Your task to perform on an android device: Play the last video I watched on Youtube Image 0: 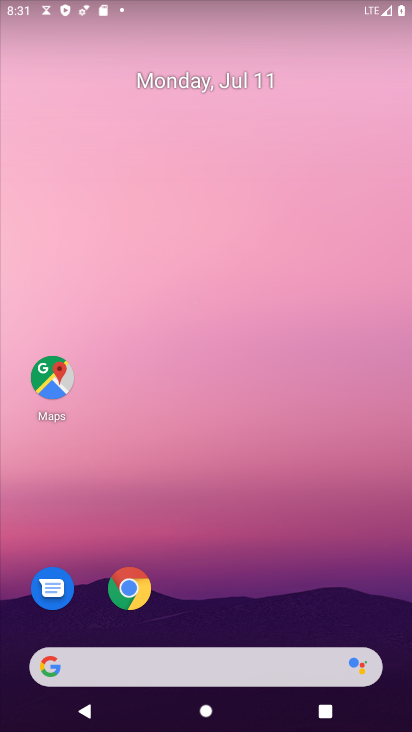
Step 0: press home button
Your task to perform on an android device: Play the last video I watched on Youtube Image 1: 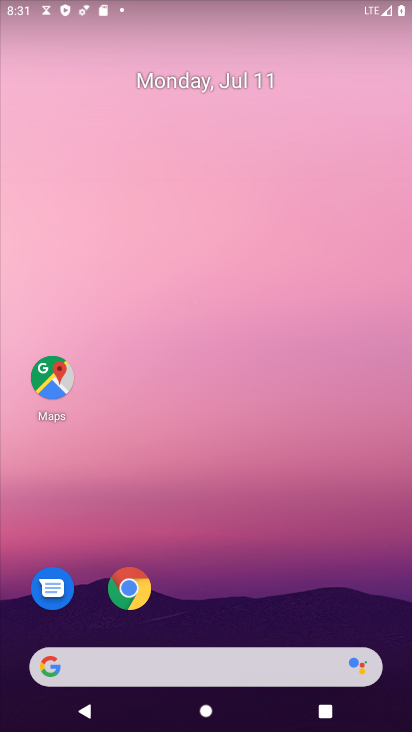
Step 1: drag from (232, 563) to (229, 171)
Your task to perform on an android device: Play the last video I watched on Youtube Image 2: 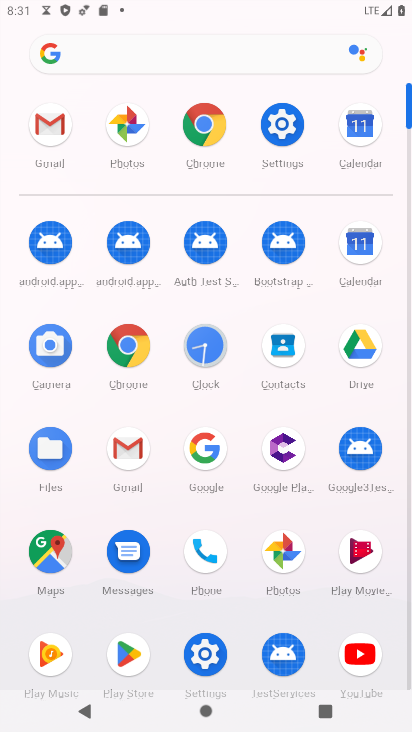
Step 2: click (363, 659)
Your task to perform on an android device: Play the last video I watched on Youtube Image 3: 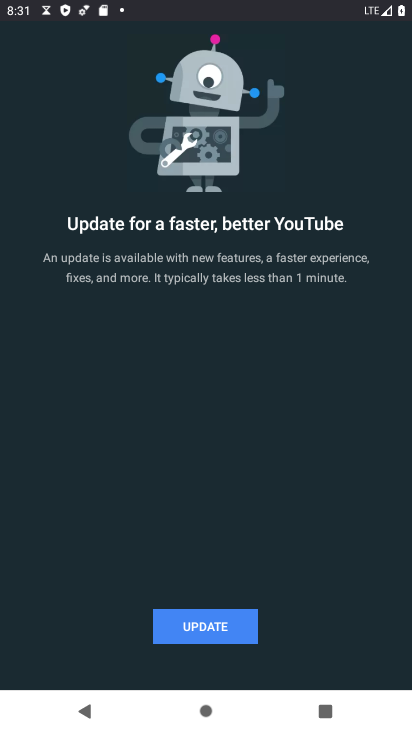
Step 3: click (206, 633)
Your task to perform on an android device: Play the last video I watched on Youtube Image 4: 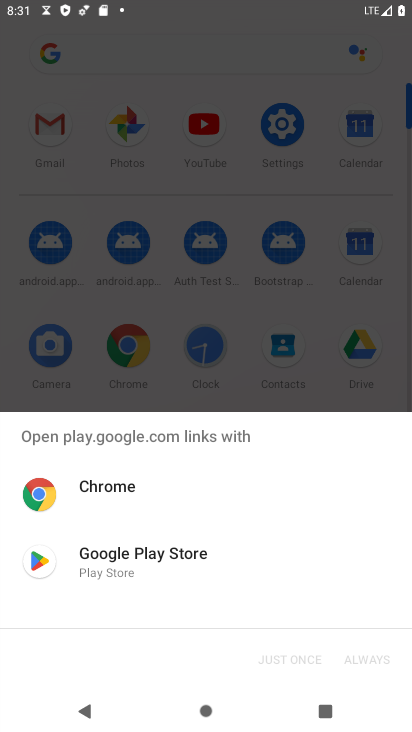
Step 4: click (139, 558)
Your task to perform on an android device: Play the last video I watched on Youtube Image 5: 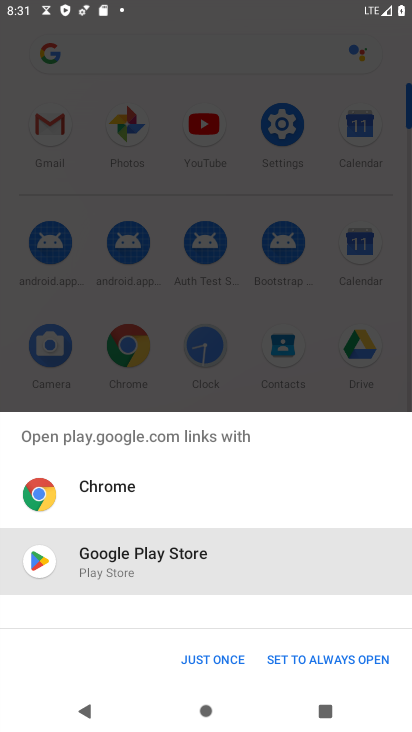
Step 5: click (227, 661)
Your task to perform on an android device: Play the last video I watched on Youtube Image 6: 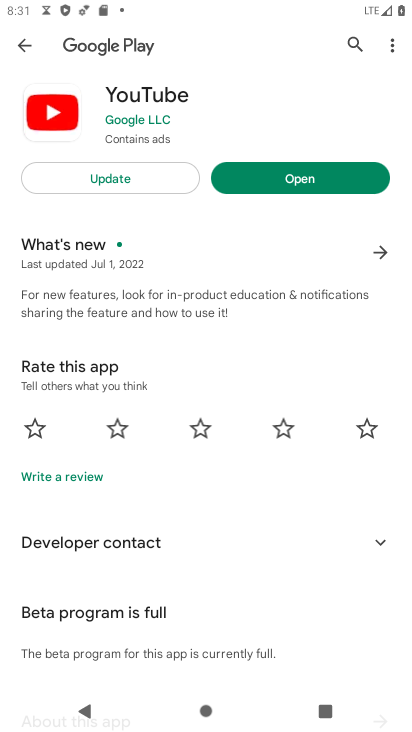
Step 6: click (99, 179)
Your task to perform on an android device: Play the last video I watched on Youtube Image 7: 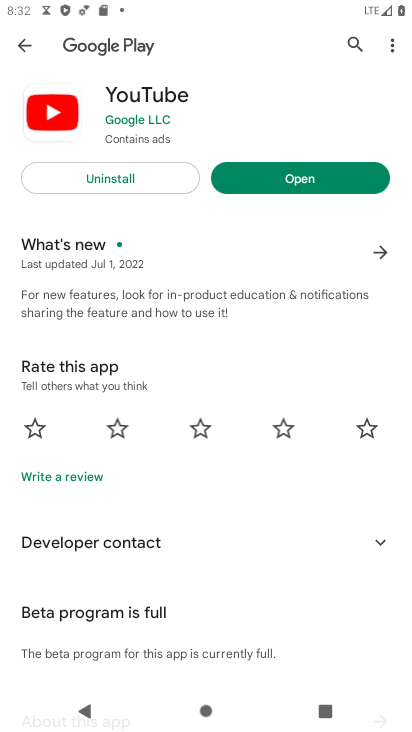
Step 7: click (260, 184)
Your task to perform on an android device: Play the last video I watched on Youtube Image 8: 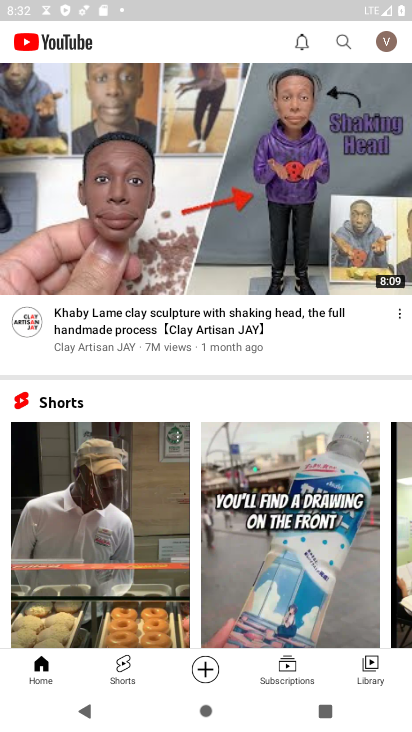
Step 8: click (356, 657)
Your task to perform on an android device: Play the last video I watched on Youtube Image 9: 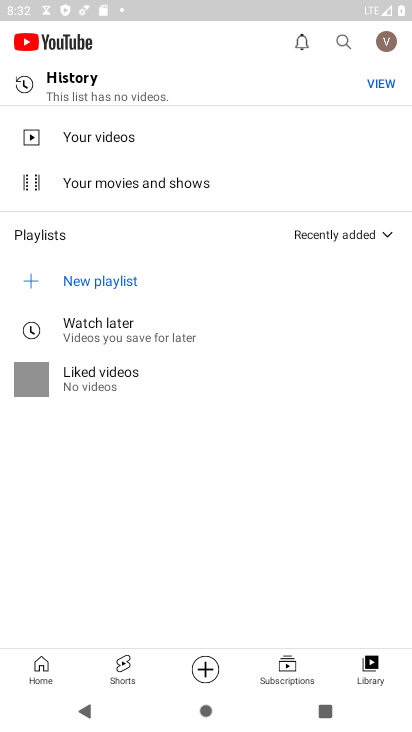
Step 9: click (375, 80)
Your task to perform on an android device: Play the last video I watched on Youtube Image 10: 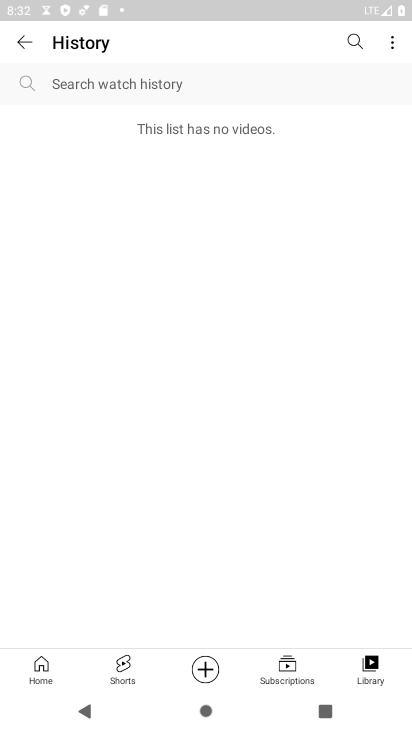
Step 10: task complete